Your task to perform on an android device: toggle location history Image 0: 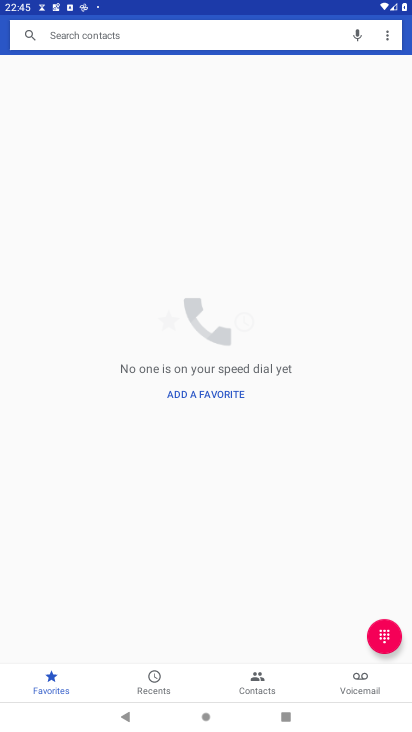
Step 0: press home button
Your task to perform on an android device: toggle location history Image 1: 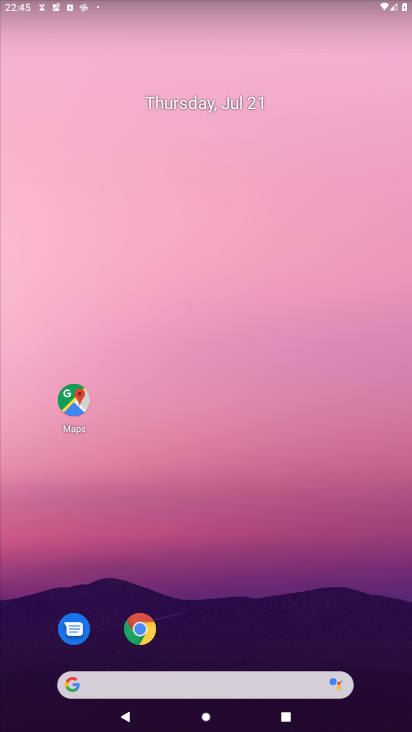
Step 1: drag from (181, 608) to (216, 65)
Your task to perform on an android device: toggle location history Image 2: 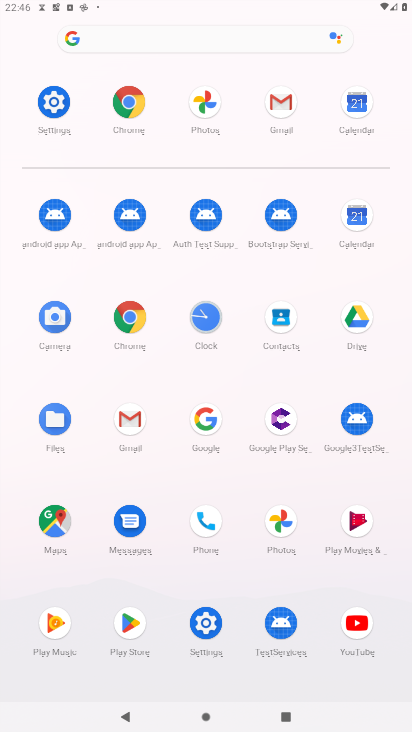
Step 2: click (219, 628)
Your task to perform on an android device: toggle location history Image 3: 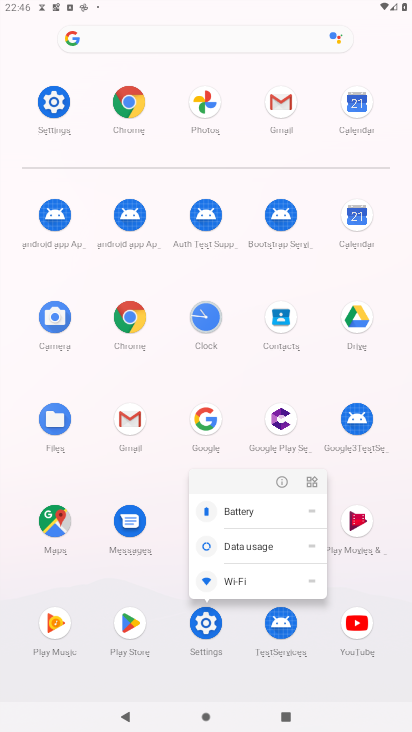
Step 3: click (213, 631)
Your task to perform on an android device: toggle location history Image 4: 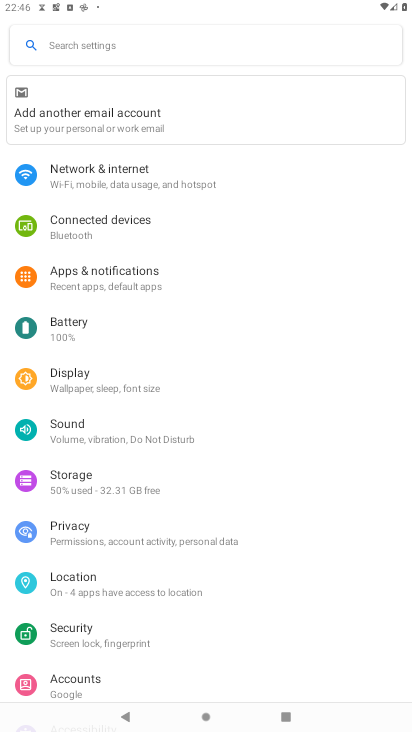
Step 4: click (90, 583)
Your task to perform on an android device: toggle location history Image 5: 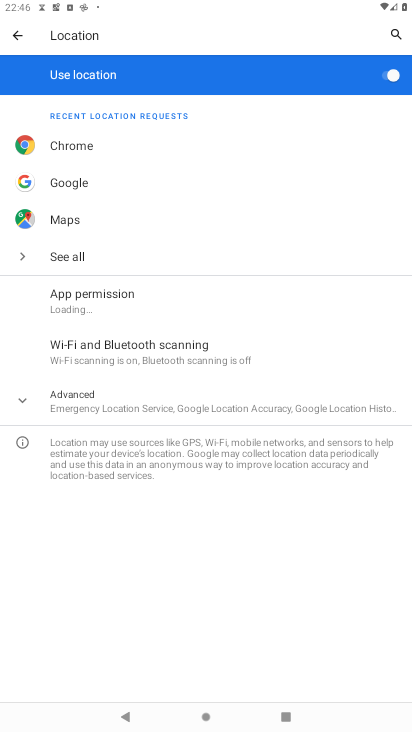
Step 5: click (149, 416)
Your task to perform on an android device: toggle location history Image 6: 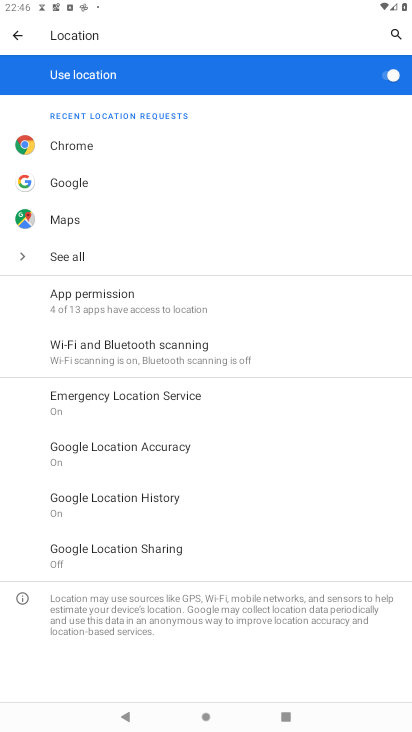
Step 6: drag from (149, 416) to (153, 100)
Your task to perform on an android device: toggle location history Image 7: 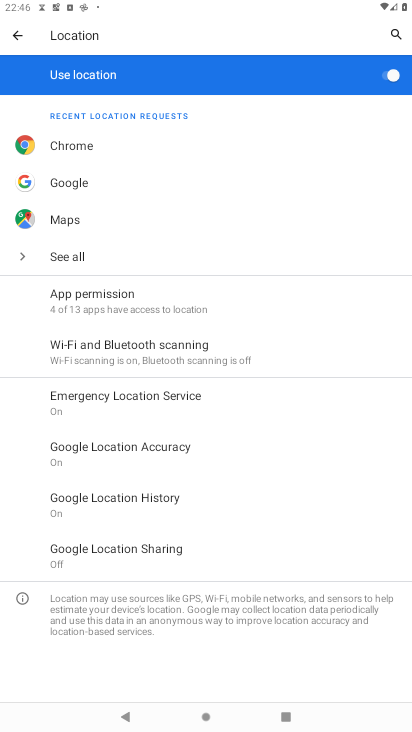
Step 7: click (167, 497)
Your task to perform on an android device: toggle location history Image 8: 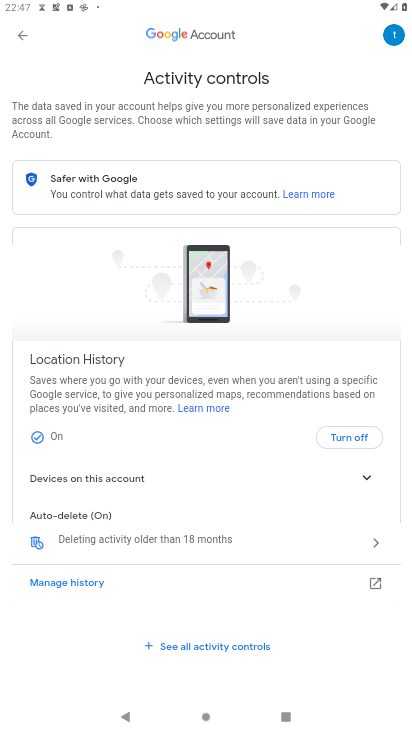
Step 8: click (354, 426)
Your task to perform on an android device: toggle location history Image 9: 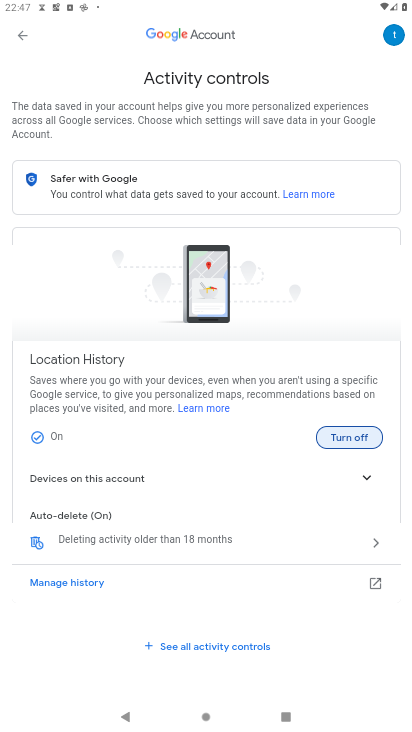
Step 9: click (361, 443)
Your task to perform on an android device: toggle location history Image 10: 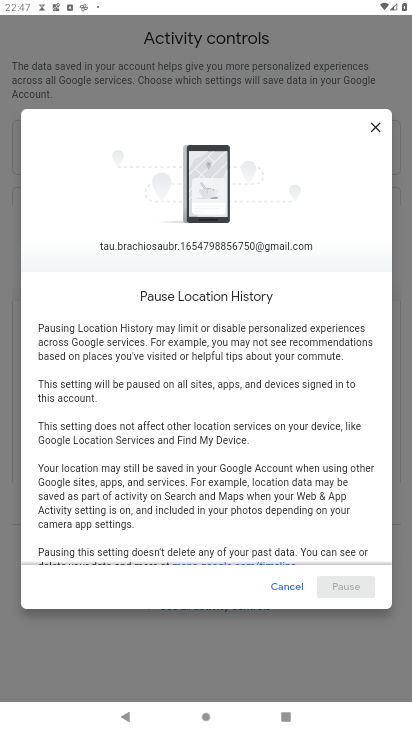
Step 10: drag from (316, 541) to (268, 111)
Your task to perform on an android device: toggle location history Image 11: 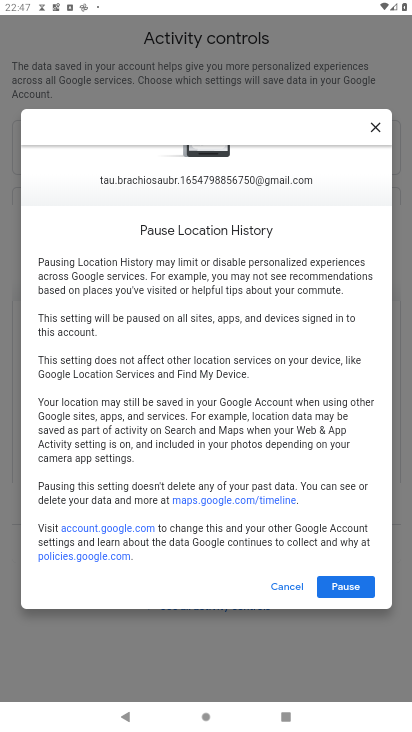
Step 11: click (361, 583)
Your task to perform on an android device: toggle location history Image 12: 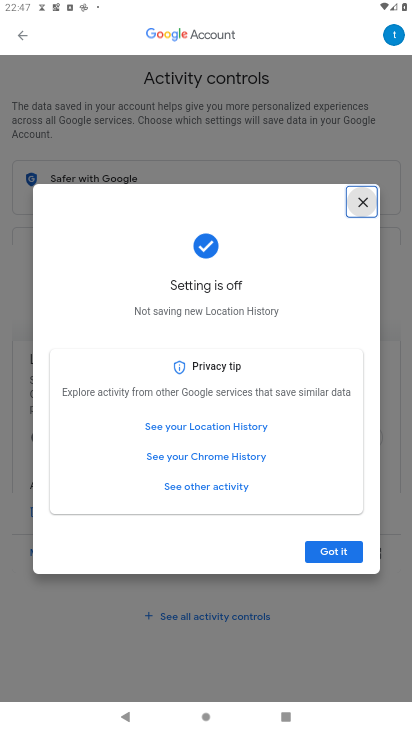
Step 12: click (351, 549)
Your task to perform on an android device: toggle location history Image 13: 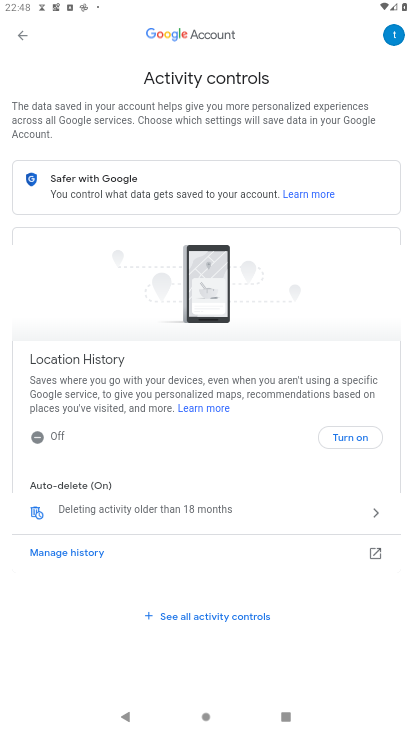
Step 13: task complete